Your task to perform on an android device: Search for Mexican restaurants on Maps Image 0: 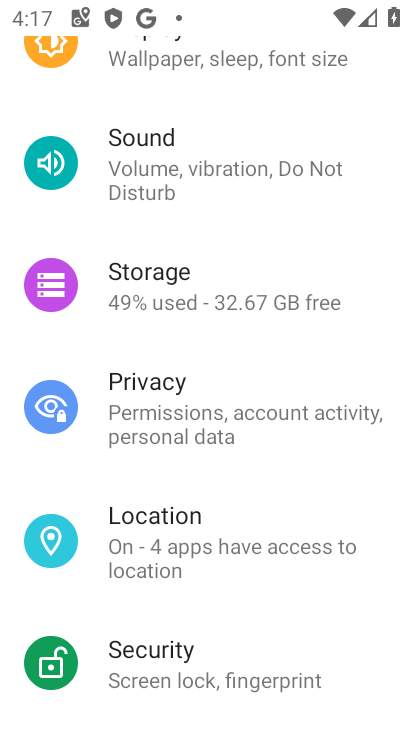
Step 0: press back button
Your task to perform on an android device: Search for Mexican restaurants on Maps Image 1: 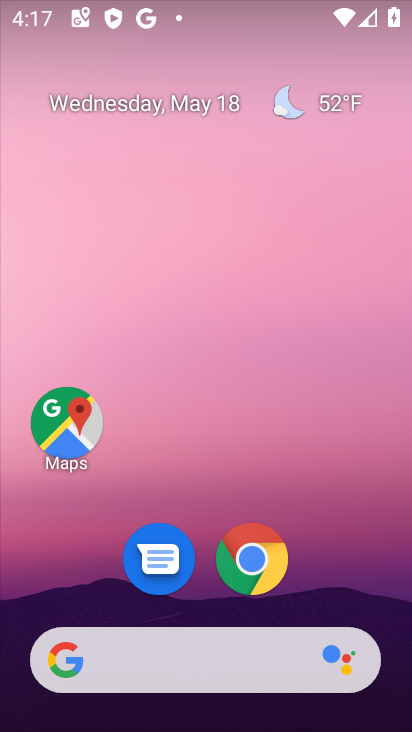
Step 1: click (63, 427)
Your task to perform on an android device: Search for Mexican restaurants on Maps Image 2: 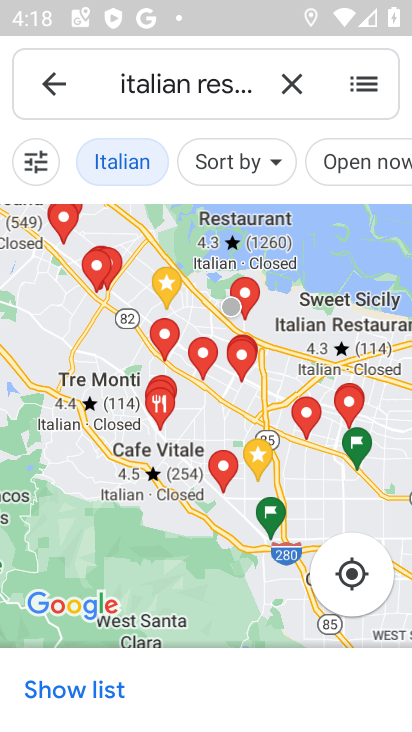
Step 2: click (281, 77)
Your task to perform on an android device: Search for Mexican restaurants on Maps Image 3: 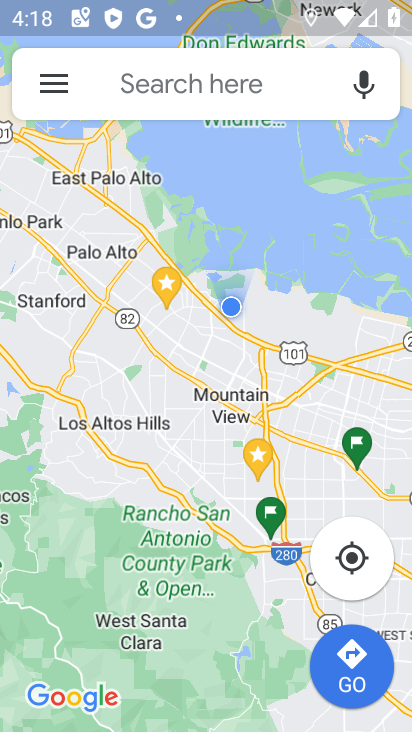
Step 3: click (123, 87)
Your task to perform on an android device: Search for Mexican restaurants on Maps Image 4: 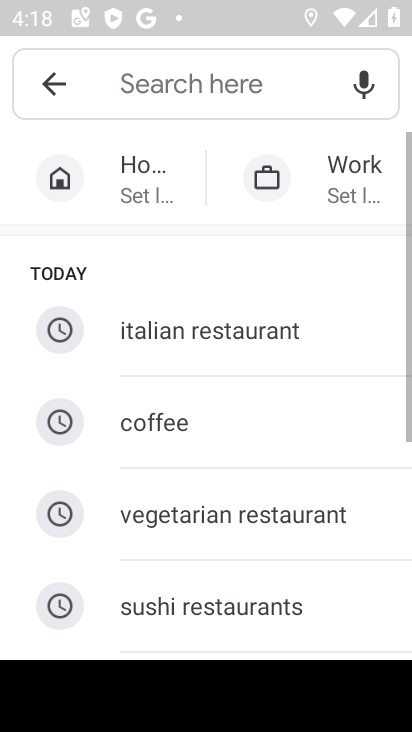
Step 4: drag from (188, 542) to (249, 111)
Your task to perform on an android device: Search for Mexican restaurants on Maps Image 5: 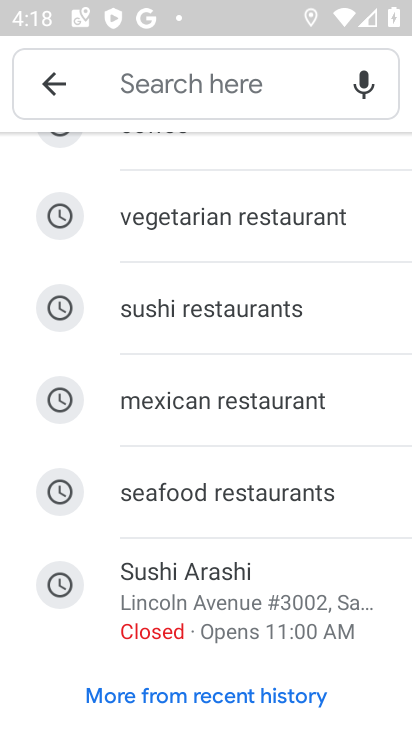
Step 5: click (219, 409)
Your task to perform on an android device: Search for Mexican restaurants on Maps Image 6: 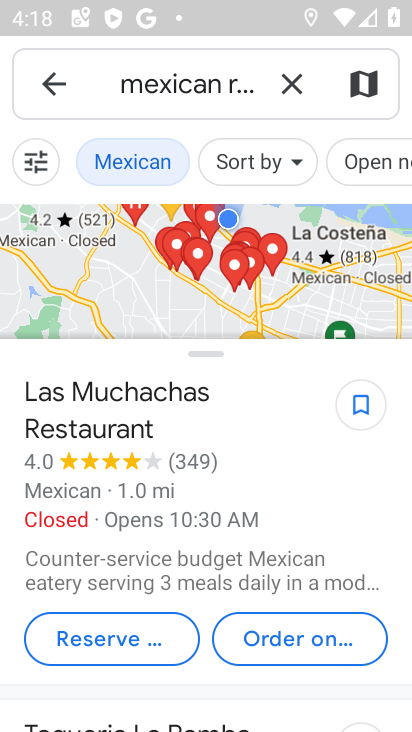
Step 6: task complete